Your task to perform on an android device: Go to Reddit.com Image 0: 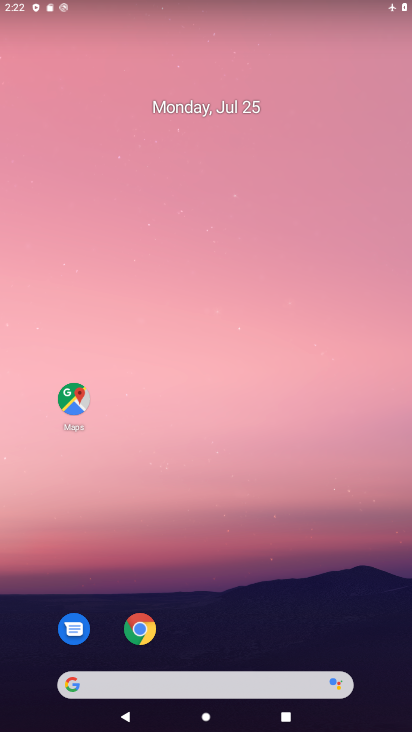
Step 0: drag from (301, 679) to (192, 118)
Your task to perform on an android device: Go to Reddit.com Image 1: 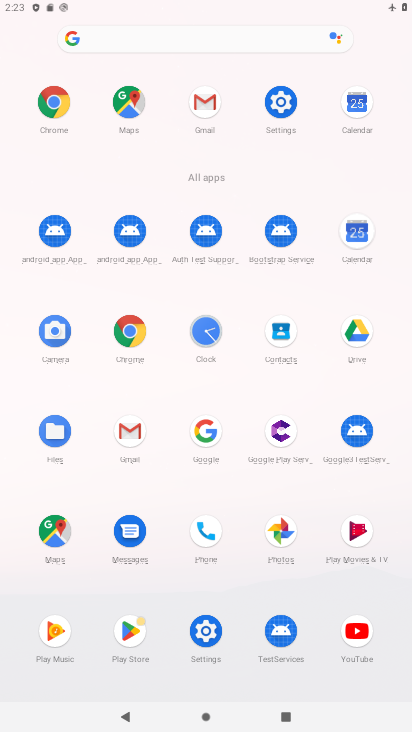
Step 1: click (51, 108)
Your task to perform on an android device: Go to Reddit.com Image 2: 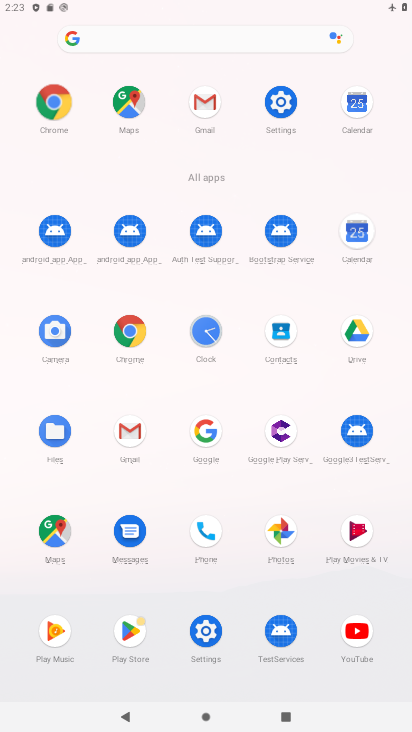
Step 2: click (51, 108)
Your task to perform on an android device: Go to Reddit.com Image 3: 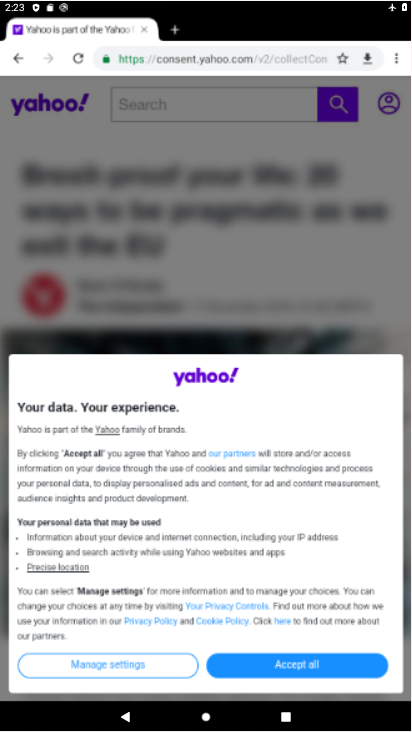
Step 3: click (51, 108)
Your task to perform on an android device: Go to Reddit.com Image 4: 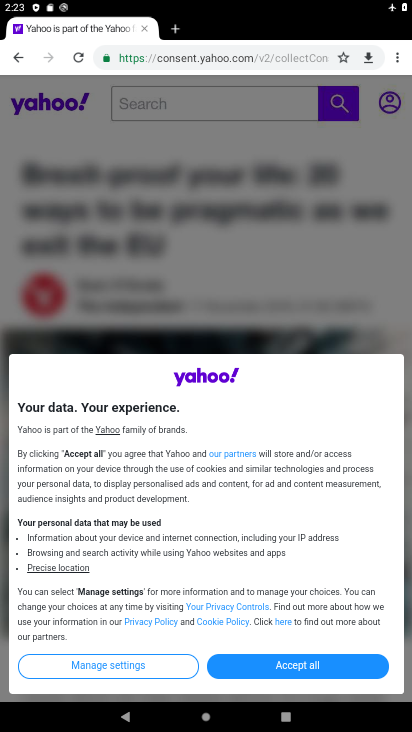
Step 4: task complete